Your task to perform on an android device: remove spam from my inbox in the gmail app Image 0: 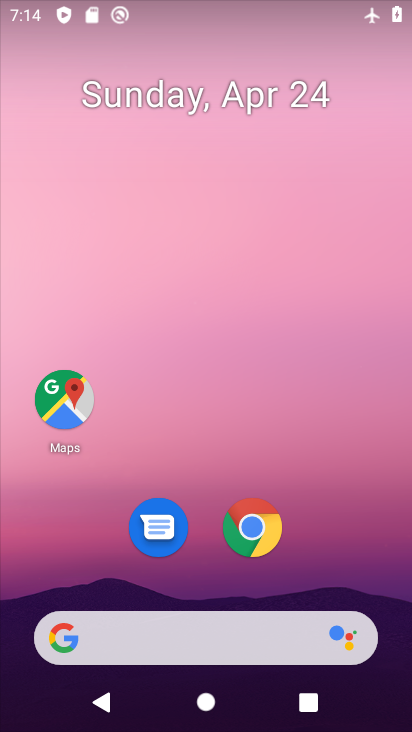
Step 0: drag from (389, 606) to (323, 97)
Your task to perform on an android device: remove spam from my inbox in the gmail app Image 1: 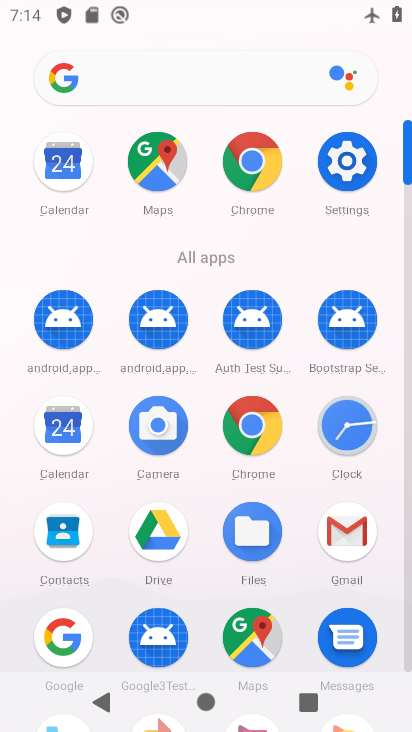
Step 1: click (354, 523)
Your task to perform on an android device: remove spam from my inbox in the gmail app Image 2: 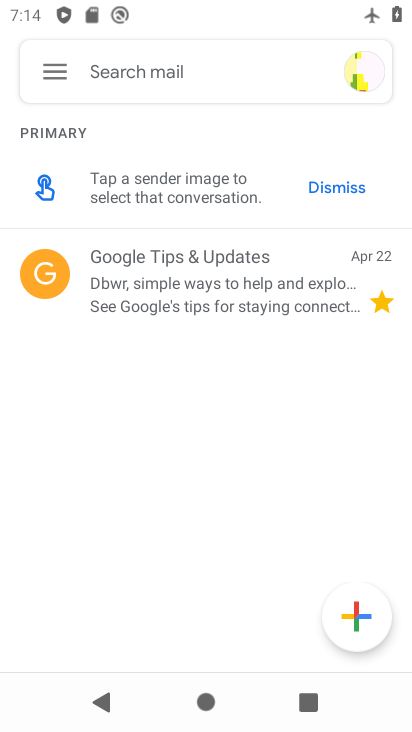
Step 2: click (31, 72)
Your task to perform on an android device: remove spam from my inbox in the gmail app Image 3: 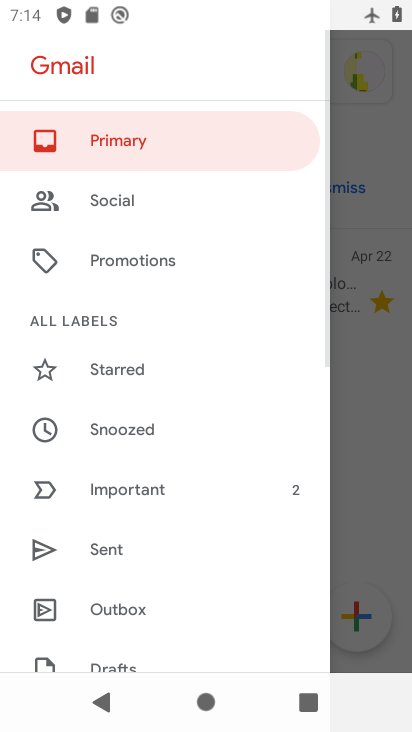
Step 3: drag from (116, 597) to (138, 56)
Your task to perform on an android device: remove spam from my inbox in the gmail app Image 4: 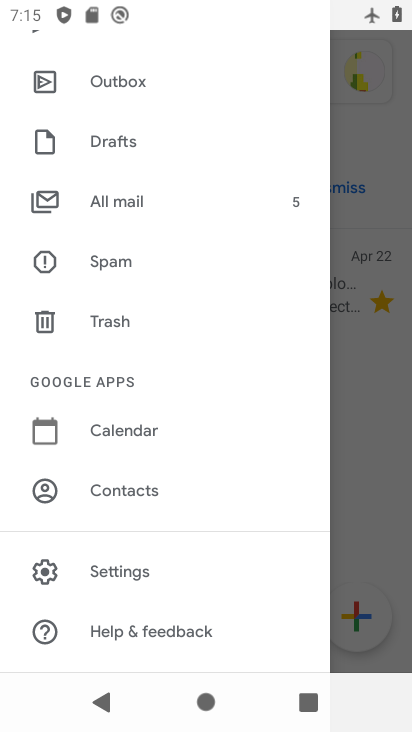
Step 4: click (139, 252)
Your task to perform on an android device: remove spam from my inbox in the gmail app Image 5: 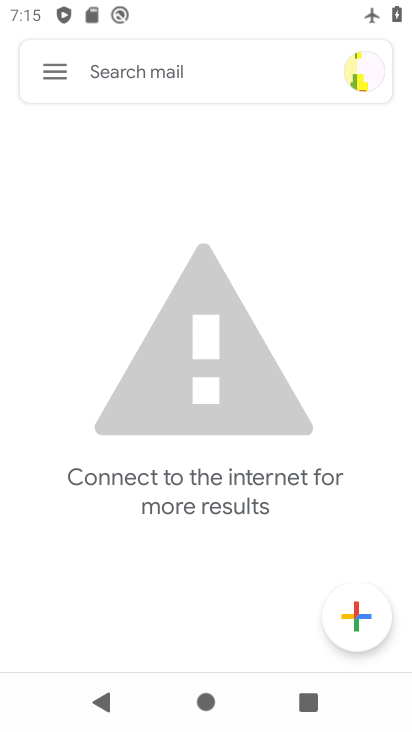
Step 5: task complete